Your task to perform on an android device: When is my next appointment? Image 0: 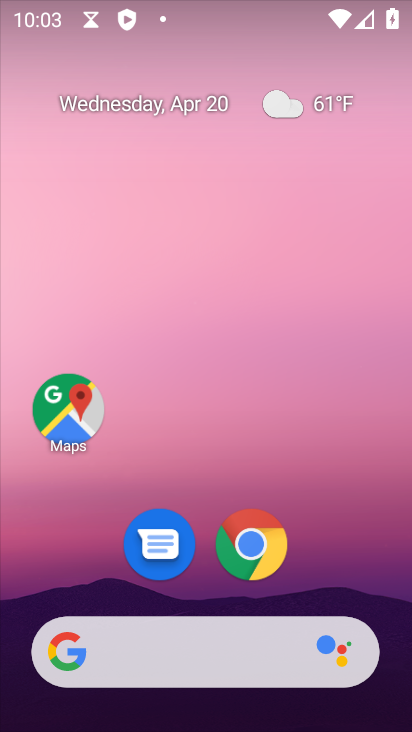
Step 0: drag from (221, 534) to (325, 87)
Your task to perform on an android device: When is my next appointment? Image 1: 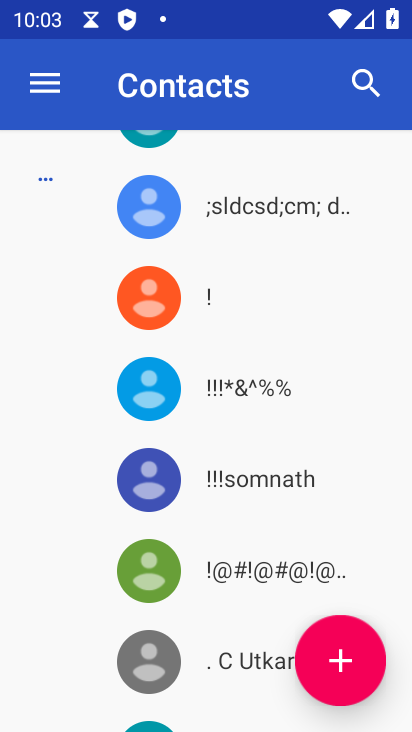
Step 1: press home button
Your task to perform on an android device: When is my next appointment? Image 2: 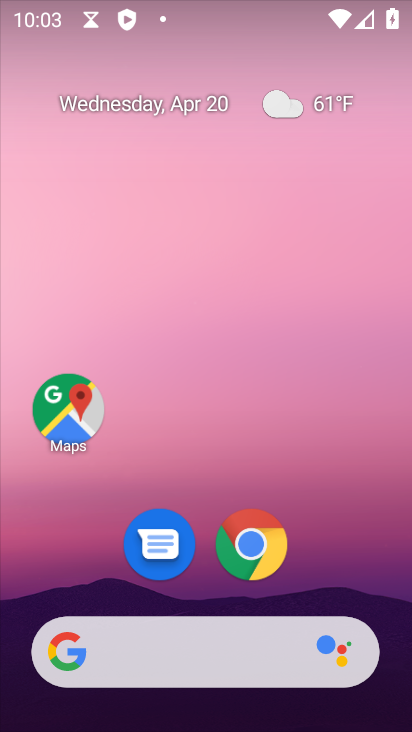
Step 2: drag from (164, 636) to (279, 30)
Your task to perform on an android device: When is my next appointment? Image 3: 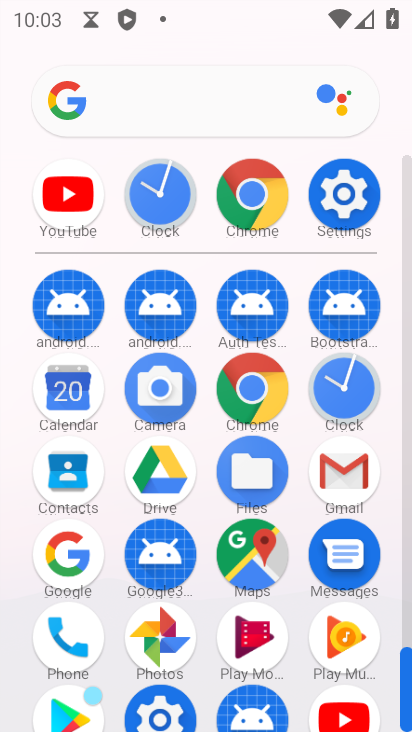
Step 3: click (64, 401)
Your task to perform on an android device: When is my next appointment? Image 4: 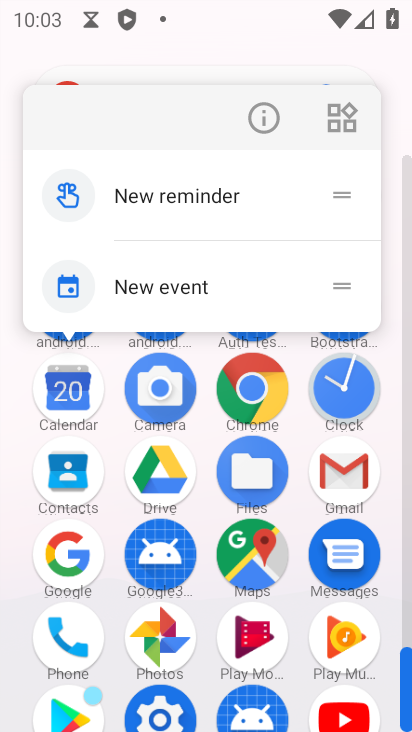
Step 4: click (70, 396)
Your task to perform on an android device: When is my next appointment? Image 5: 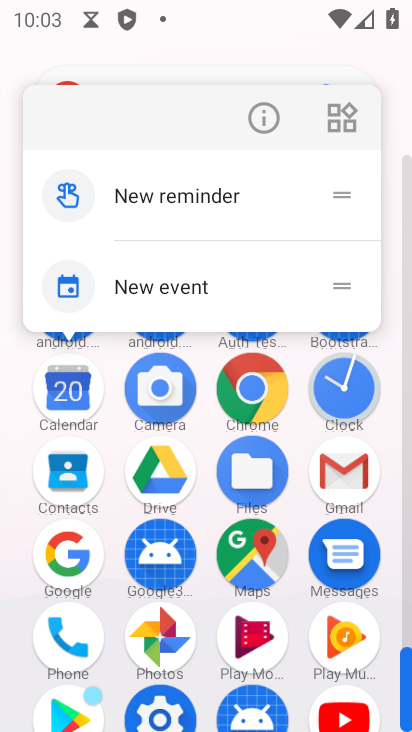
Step 5: click (67, 402)
Your task to perform on an android device: When is my next appointment? Image 6: 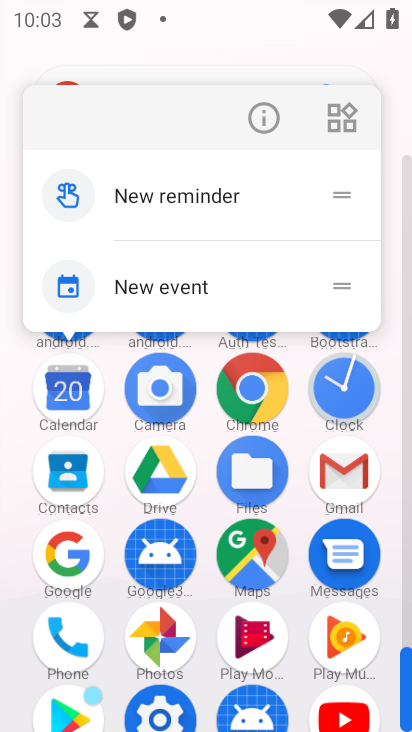
Step 6: click (72, 398)
Your task to perform on an android device: When is my next appointment? Image 7: 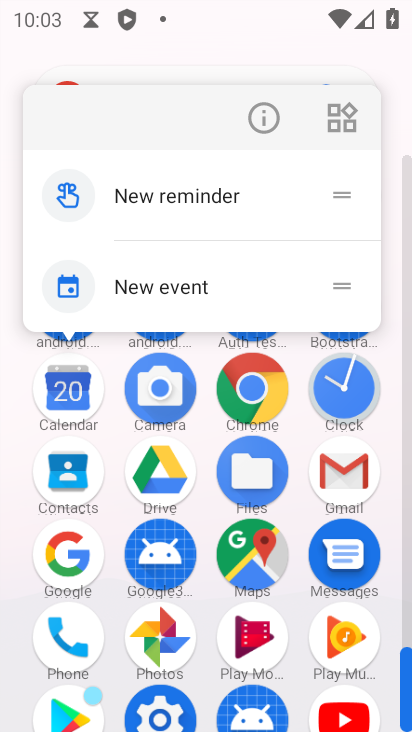
Step 7: click (75, 407)
Your task to perform on an android device: When is my next appointment? Image 8: 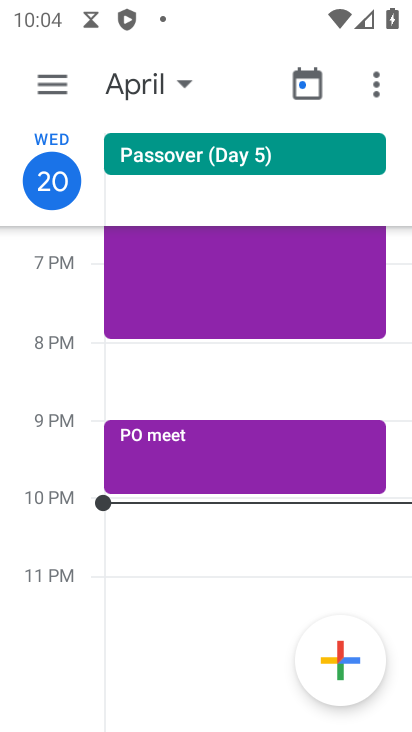
Step 8: click (128, 79)
Your task to perform on an android device: When is my next appointment? Image 9: 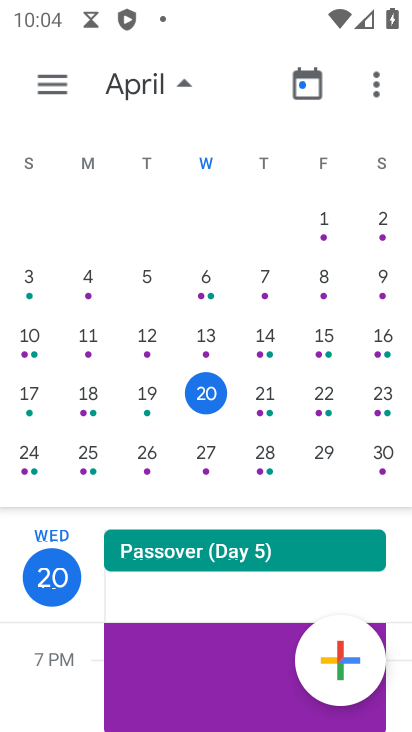
Step 9: click (47, 84)
Your task to perform on an android device: When is my next appointment? Image 10: 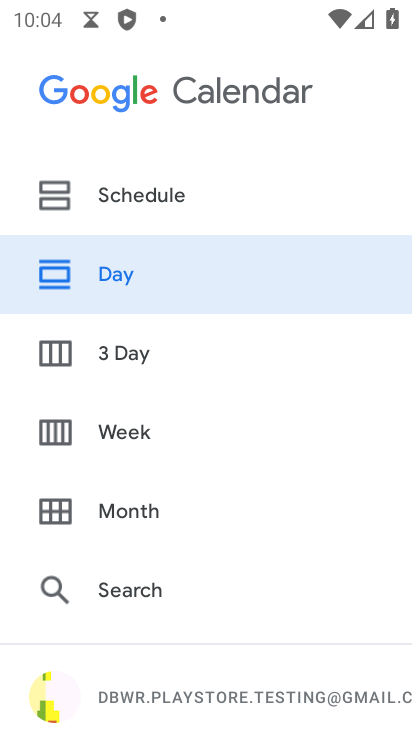
Step 10: click (158, 191)
Your task to perform on an android device: When is my next appointment? Image 11: 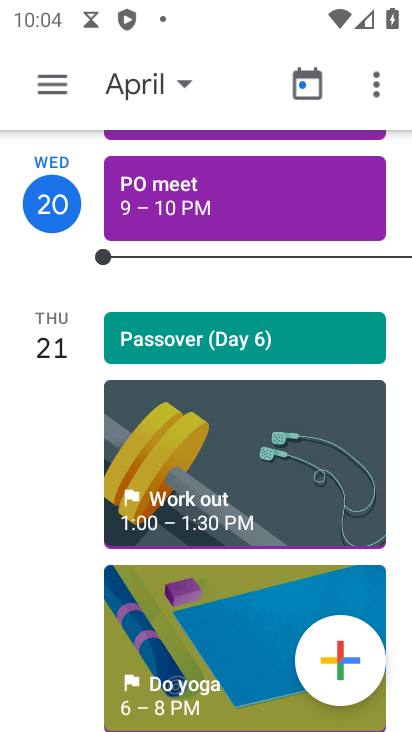
Step 11: task complete